Your task to perform on an android device: Open battery settings Image 0: 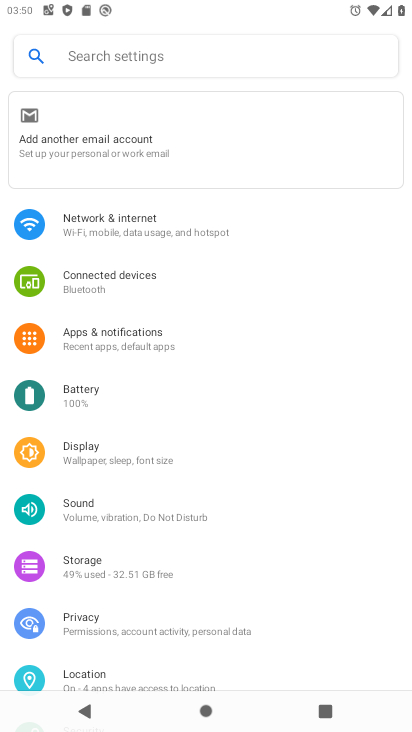
Step 0: press home button
Your task to perform on an android device: Open battery settings Image 1: 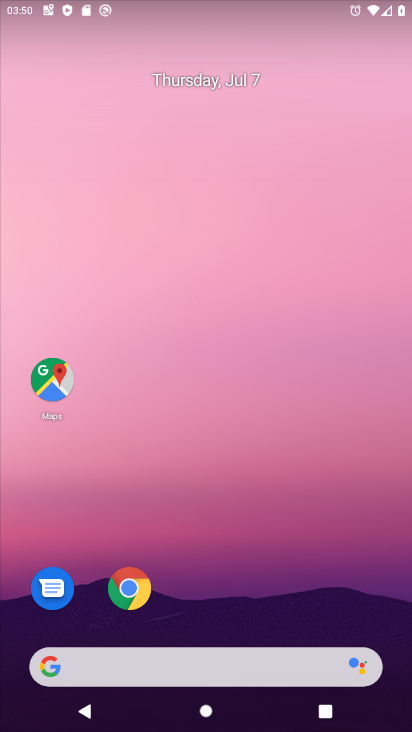
Step 1: drag from (231, 665) to (211, 348)
Your task to perform on an android device: Open battery settings Image 2: 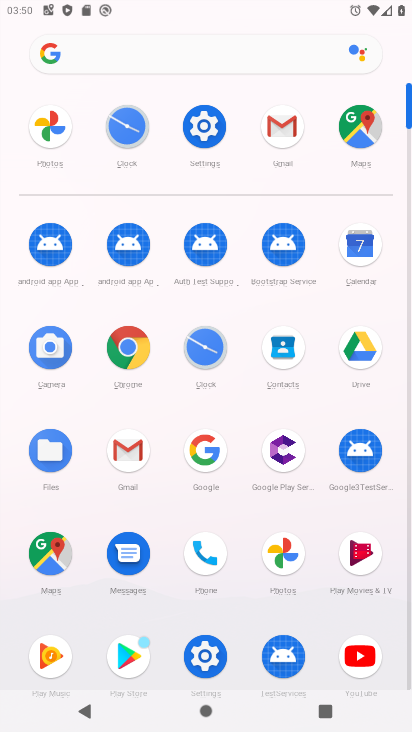
Step 2: click (209, 124)
Your task to perform on an android device: Open battery settings Image 3: 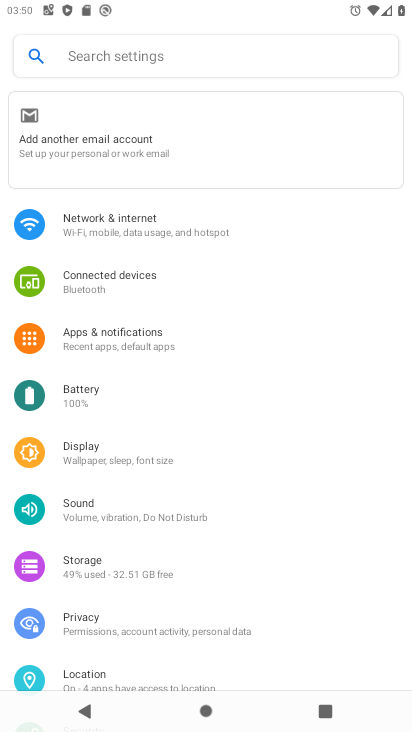
Step 3: click (100, 400)
Your task to perform on an android device: Open battery settings Image 4: 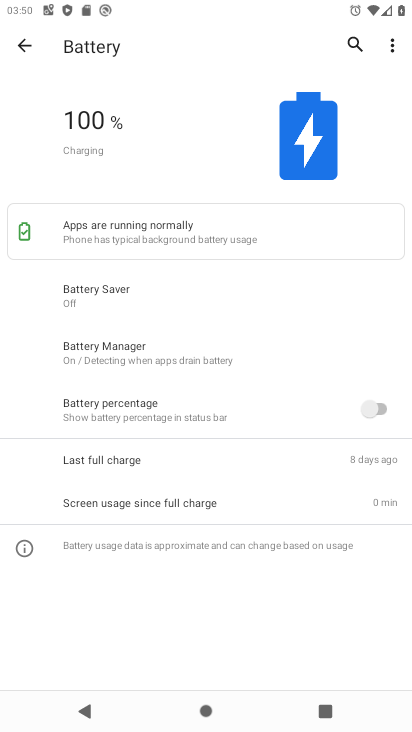
Step 4: task complete